Your task to perform on an android device: toggle location history Image 0: 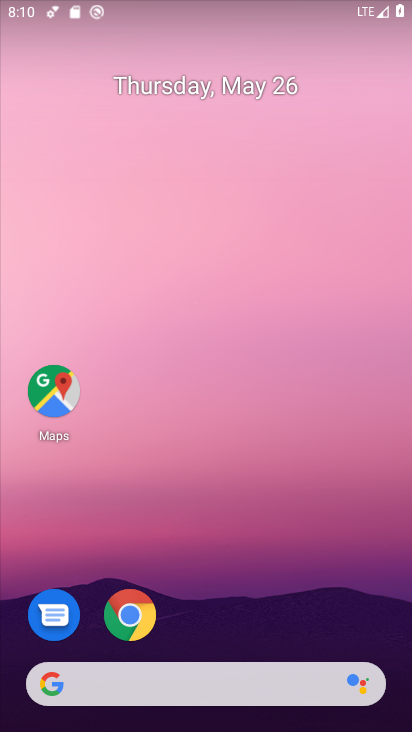
Step 0: drag from (222, 624) to (246, 228)
Your task to perform on an android device: toggle location history Image 1: 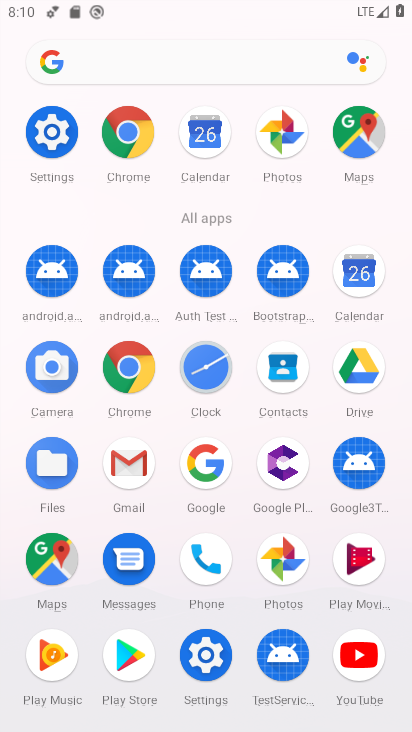
Step 1: click (52, 128)
Your task to perform on an android device: toggle location history Image 2: 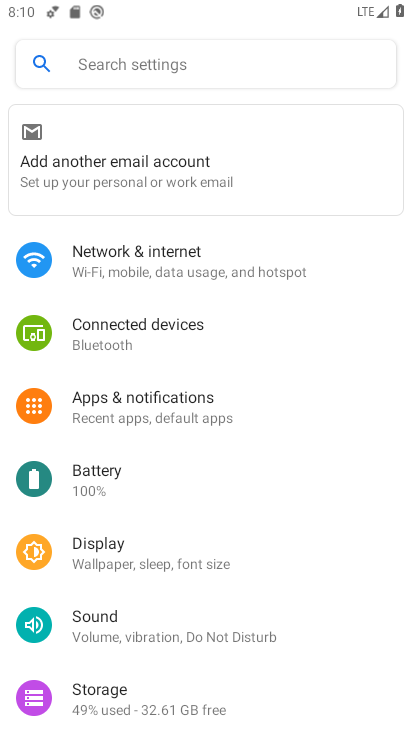
Step 2: drag from (143, 625) to (193, 293)
Your task to perform on an android device: toggle location history Image 3: 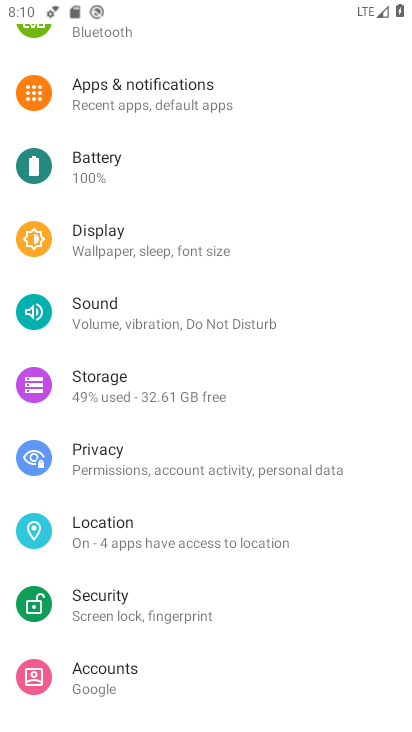
Step 3: click (147, 526)
Your task to perform on an android device: toggle location history Image 4: 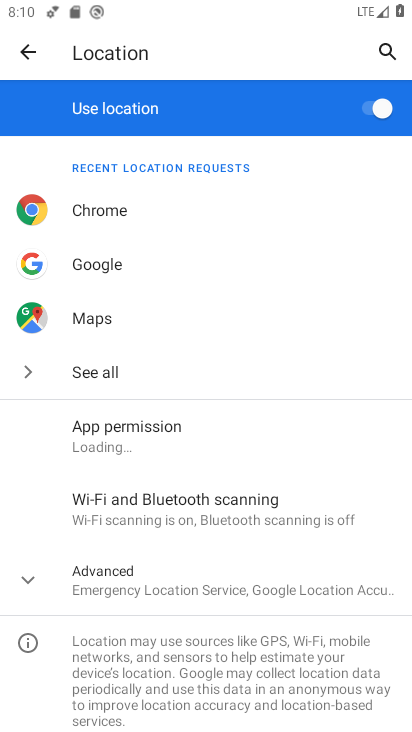
Step 4: drag from (203, 583) to (232, 325)
Your task to perform on an android device: toggle location history Image 5: 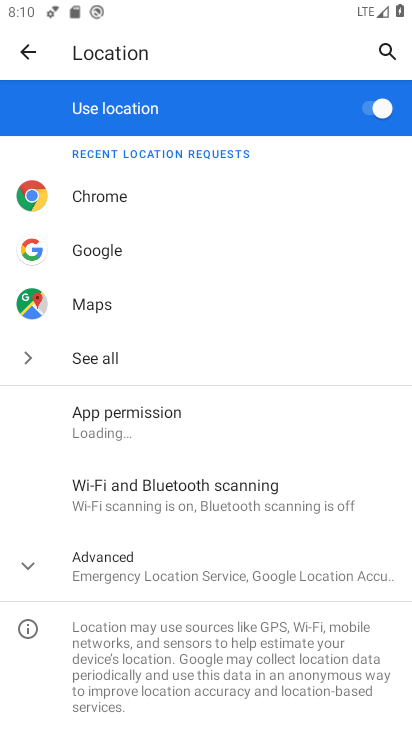
Step 5: click (155, 559)
Your task to perform on an android device: toggle location history Image 6: 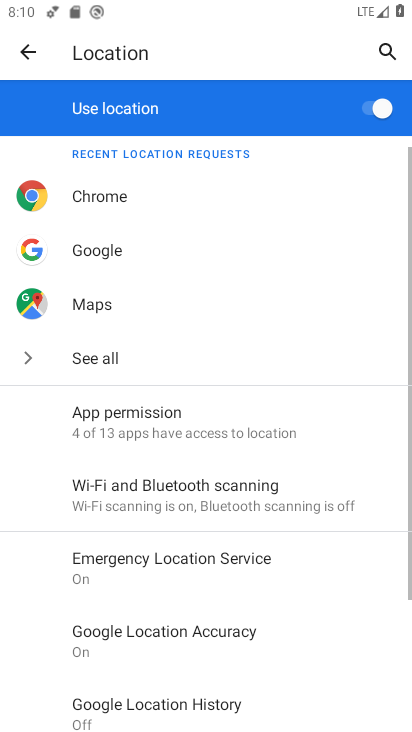
Step 6: drag from (196, 678) to (253, 385)
Your task to perform on an android device: toggle location history Image 7: 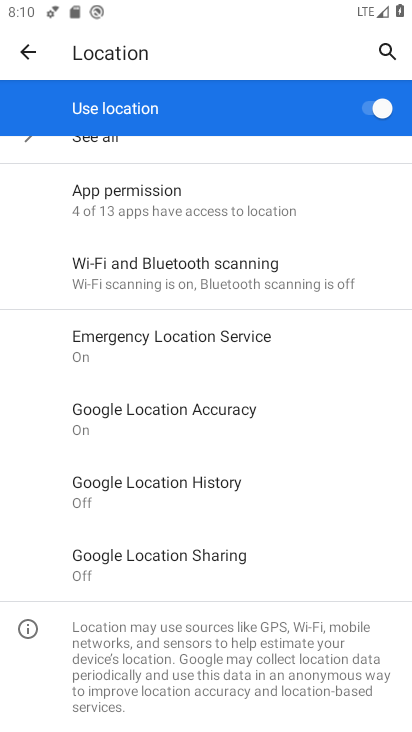
Step 7: click (205, 481)
Your task to perform on an android device: toggle location history Image 8: 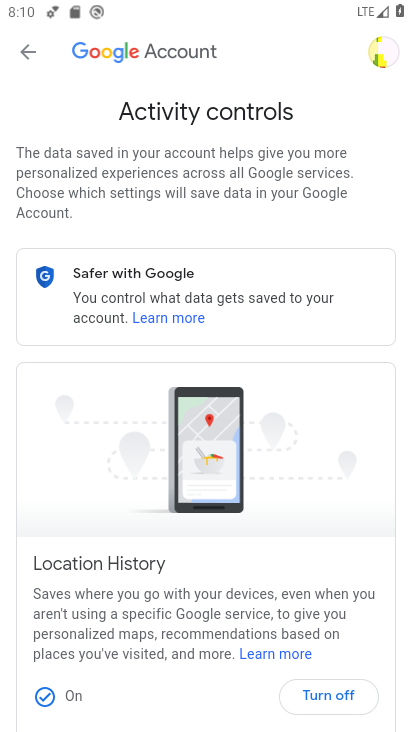
Step 8: click (330, 690)
Your task to perform on an android device: toggle location history Image 9: 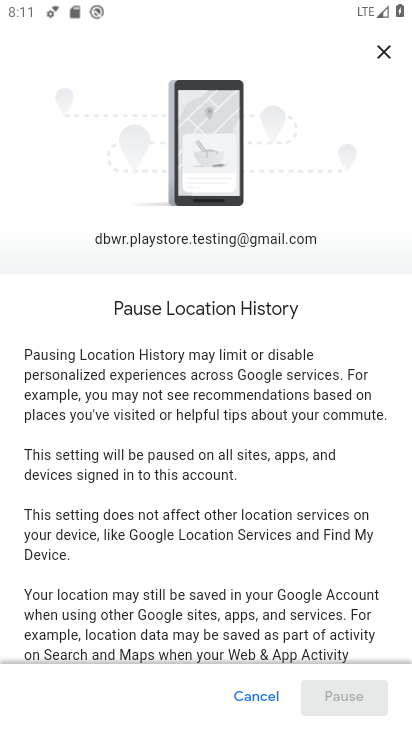
Step 9: task complete